Your task to perform on an android device: manage bookmarks in the chrome app Image 0: 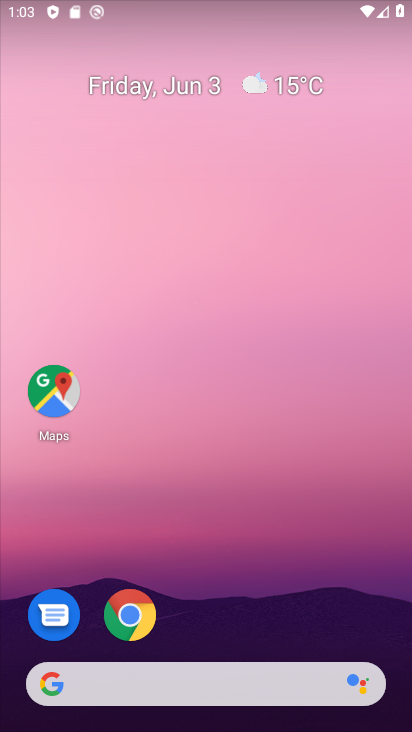
Step 0: drag from (205, 672) to (337, 110)
Your task to perform on an android device: manage bookmarks in the chrome app Image 1: 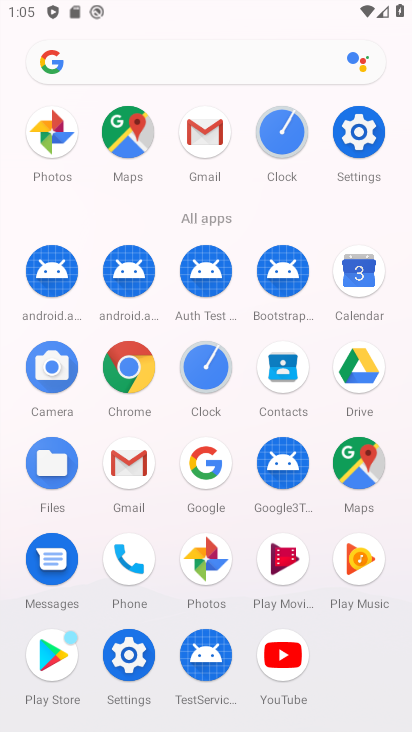
Step 1: click (131, 366)
Your task to perform on an android device: manage bookmarks in the chrome app Image 2: 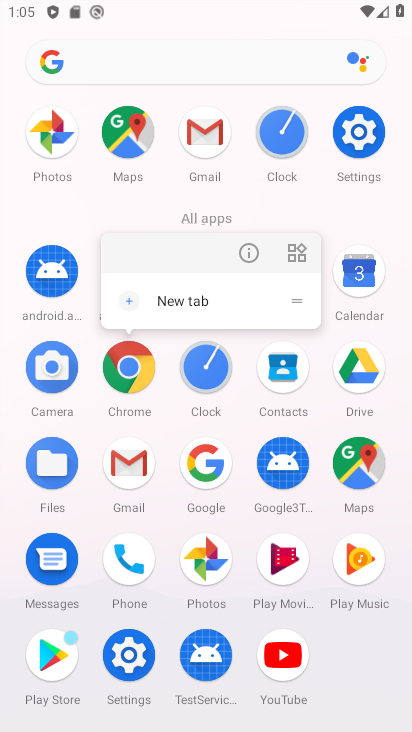
Step 2: click (259, 247)
Your task to perform on an android device: manage bookmarks in the chrome app Image 3: 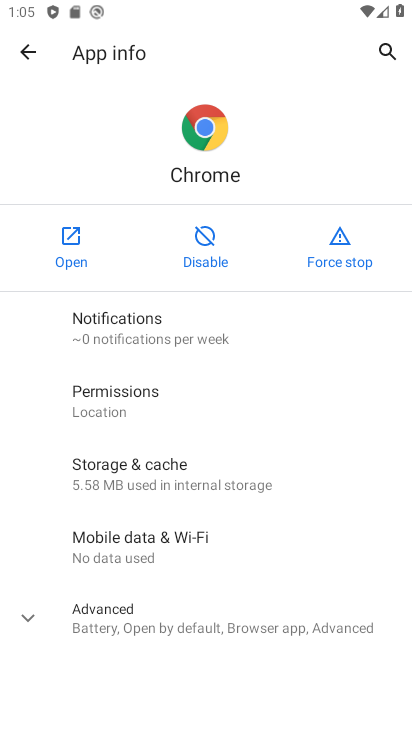
Step 3: click (69, 247)
Your task to perform on an android device: manage bookmarks in the chrome app Image 4: 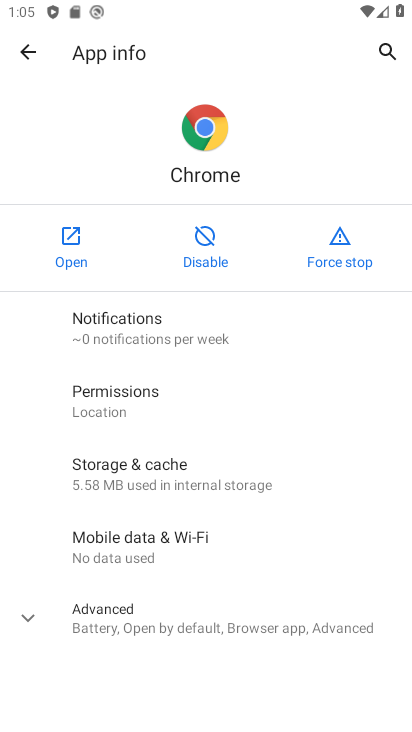
Step 4: click (69, 247)
Your task to perform on an android device: manage bookmarks in the chrome app Image 5: 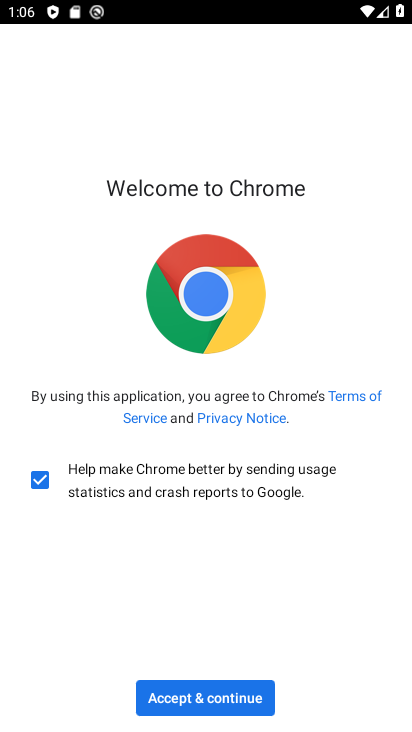
Step 5: click (176, 683)
Your task to perform on an android device: manage bookmarks in the chrome app Image 6: 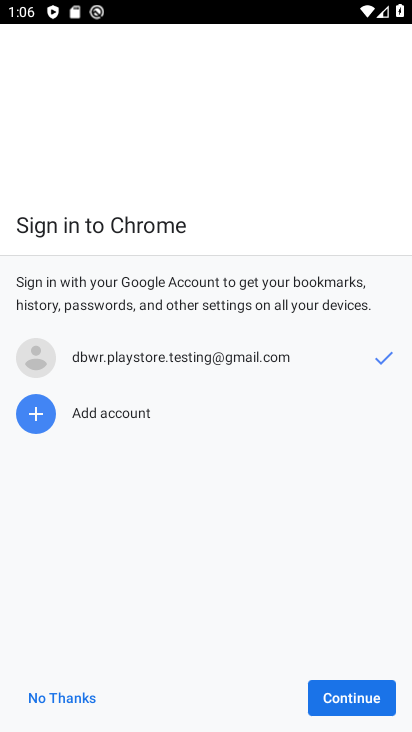
Step 6: click (76, 691)
Your task to perform on an android device: manage bookmarks in the chrome app Image 7: 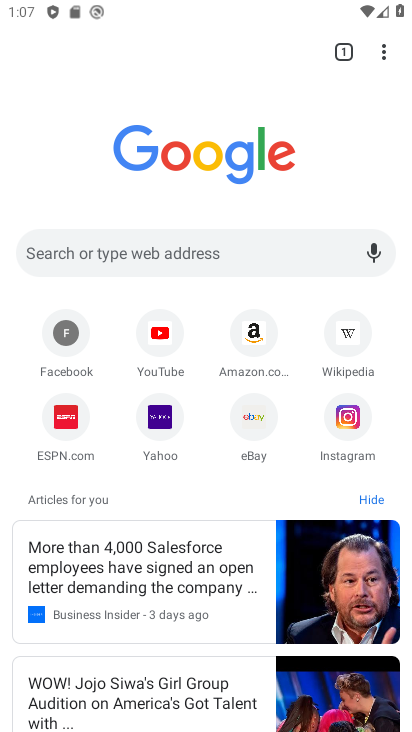
Step 7: click (326, 500)
Your task to perform on an android device: manage bookmarks in the chrome app Image 8: 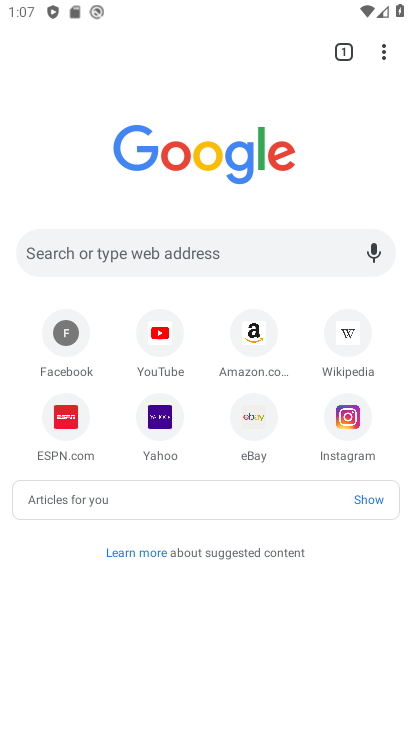
Step 8: drag from (238, 613) to (362, 425)
Your task to perform on an android device: manage bookmarks in the chrome app Image 9: 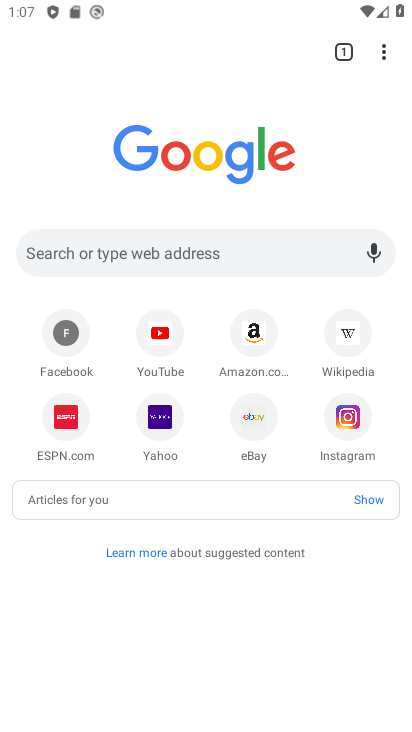
Step 9: click (388, 55)
Your task to perform on an android device: manage bookmarks in the chrome app Image 10: 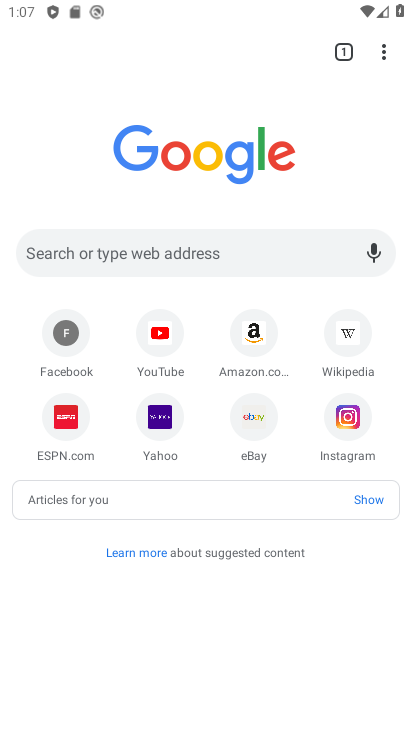
Step 10: task complete